Your task to perform on an android device: all mails in gmail Image 0: 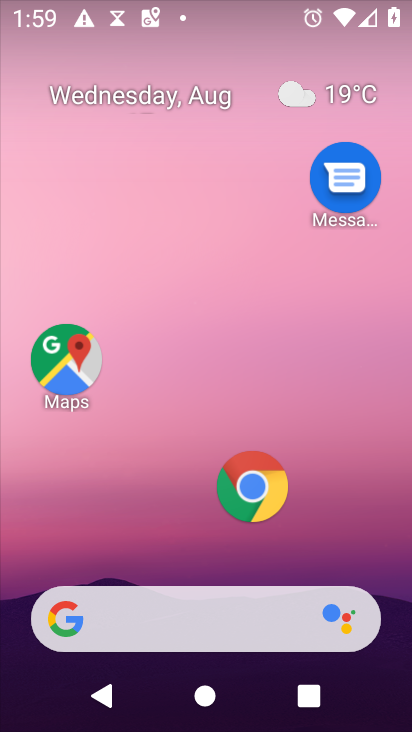
Step 0: drag from (139, 557) to (223, 4)
Your task to perform on an android device: all mails in gmail Image 1: 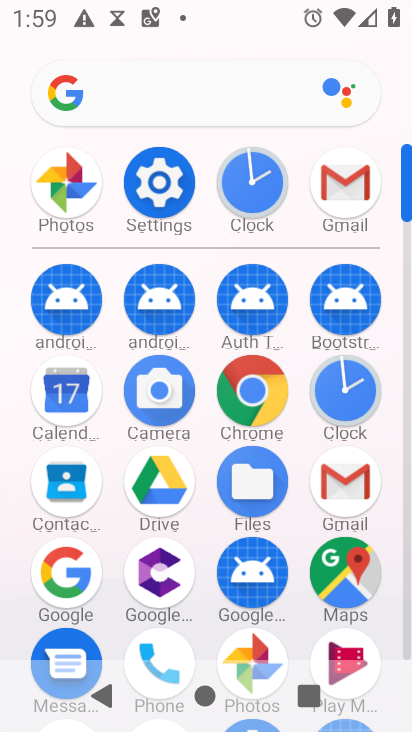
Step 1: click (347, 181)
Your task to perform on an android device: all mails in gmail Image 2: 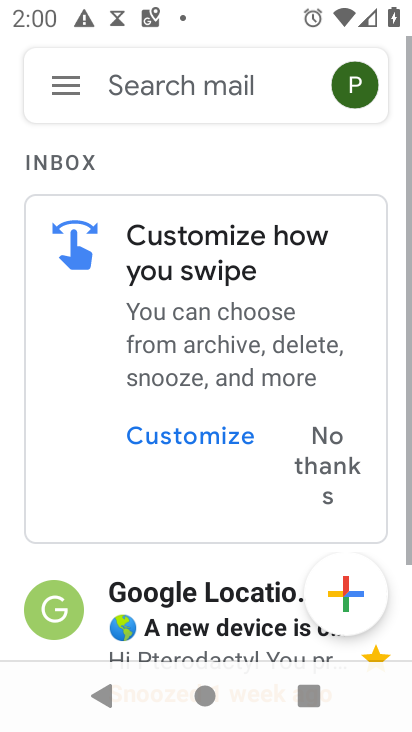
Step 2: click (66, 101)
Your task to perform on an android device: all mails in gmail Image 3: 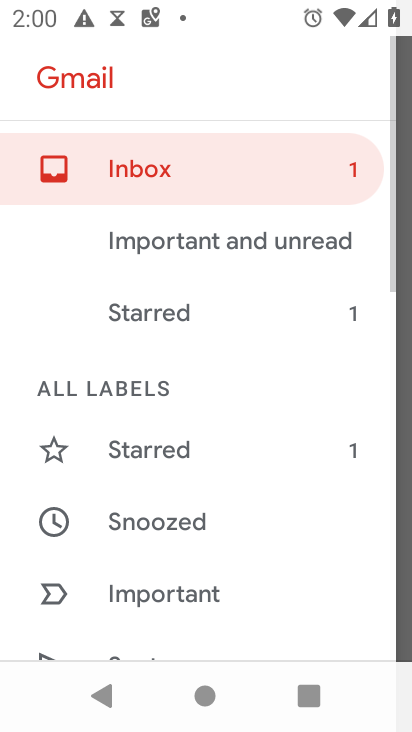
Step 3: drag from (202, 581) to (310, 47)
Your task to perform on an android device: all mails in gmail Image 4: 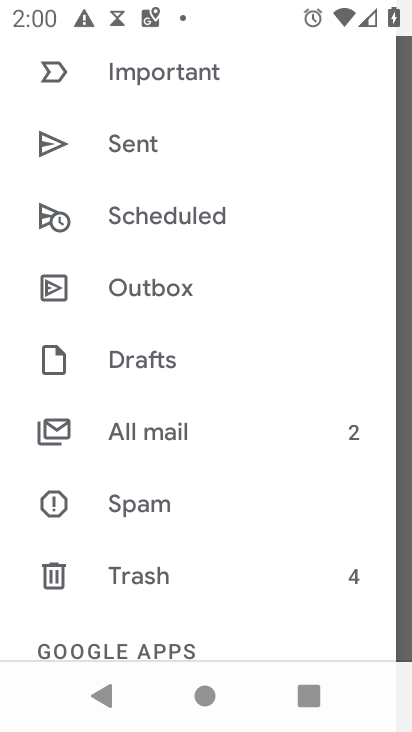
Step 4: click (201, 434)
Your task to perform on an android device: all mails in gmail Image 5: 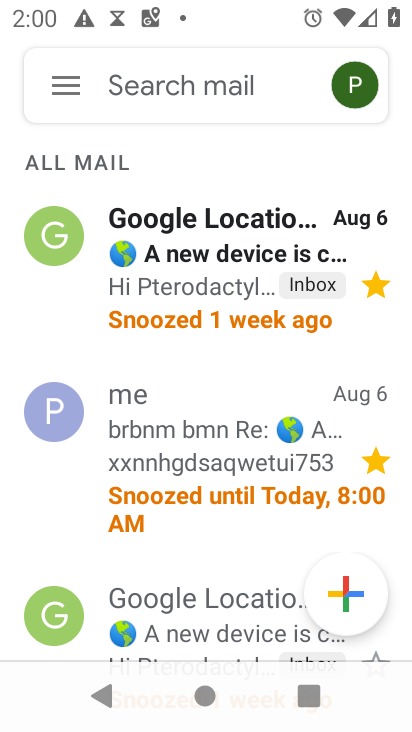
Step 5: task complete